Your task to perform on an android device: View the shopping cart on bestbuy.com. Image 0: 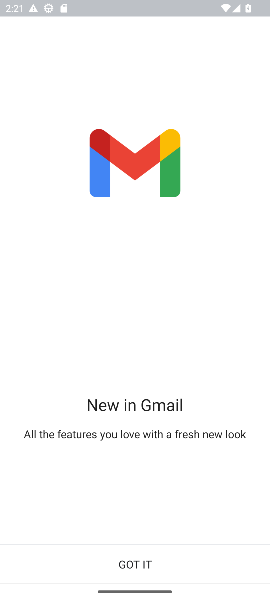
Step 0: press home button
Your task to perform on an android device: View the shopping cart on bestbuy.com. Image 1: 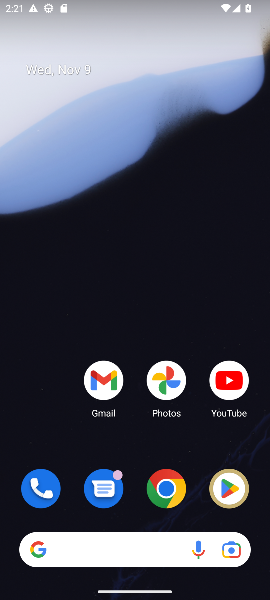
Step 1: drag from (121, 444) to (162, 59)
Your task to perform on an android device: View the shopping cart on bestbuy.com. Image 2: 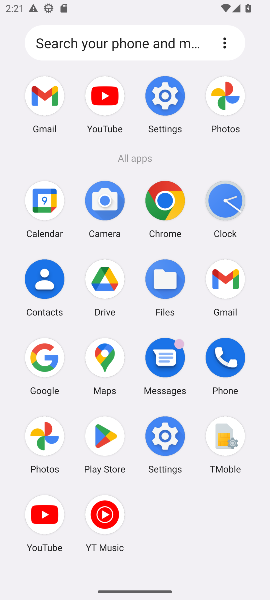
Step 2: click (164, 202)
Your task to perform on an android device: View the shopping cart on bestbuy.com. Image 3: 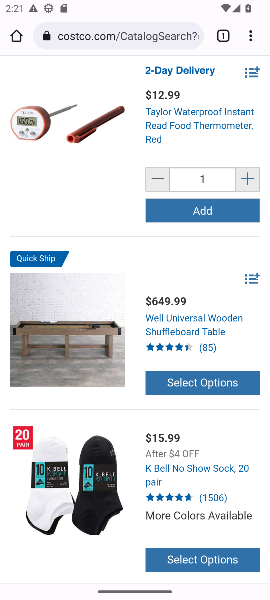
Step 3: click (113, 35)
Your task to perform on an android device: View the shopping cart on bestbuy.com. Image 4: 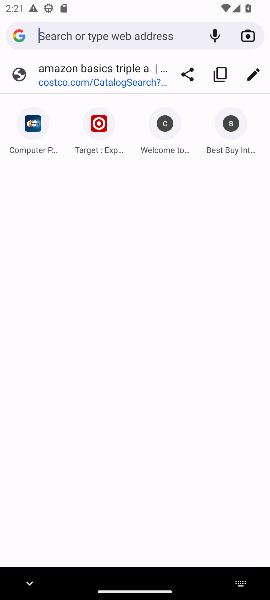
Step 4: type "bestbuy.com"
Your task to perform on an android device: View the shopping cart on bestbuy.com. Image 5: 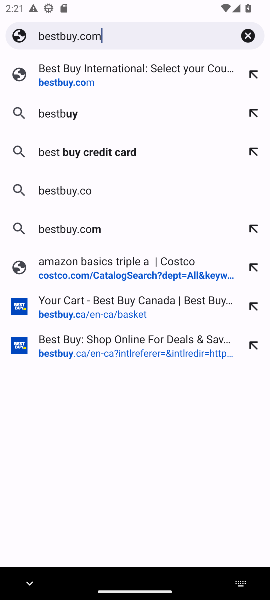
Step 5: press enter
Your task to perform on an android device: View the shopping cart on bestbuy.com. Image 6: 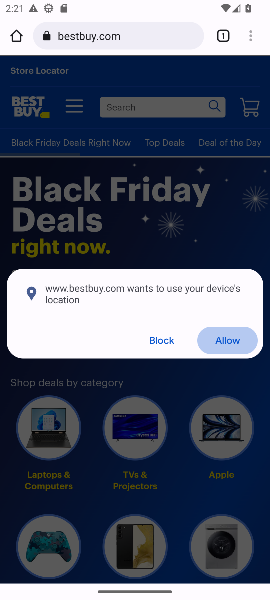
Step 6: click (154, 342)
Your task to perform on an android device: View the shopping cart on bestbuy.com. Image 7: 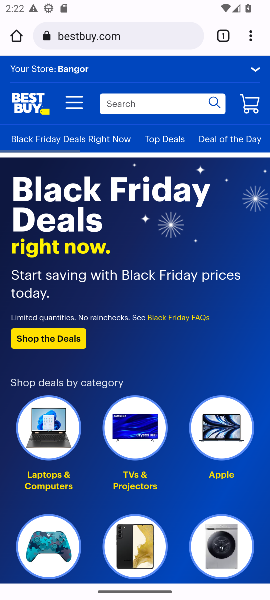
Step 7: click (243, 102)
Your task to perform on an android device: View the shopping cart on bestbuy.com. Image 8: 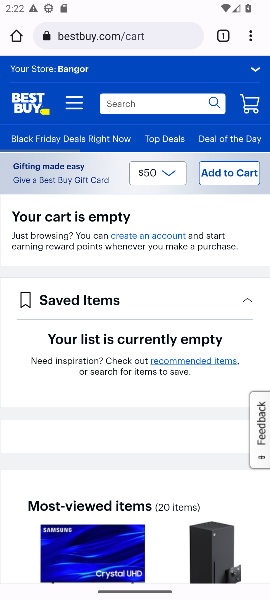
Step 8: task complete